Your task to perform on an android device: Turn off the flashlight Image 0: 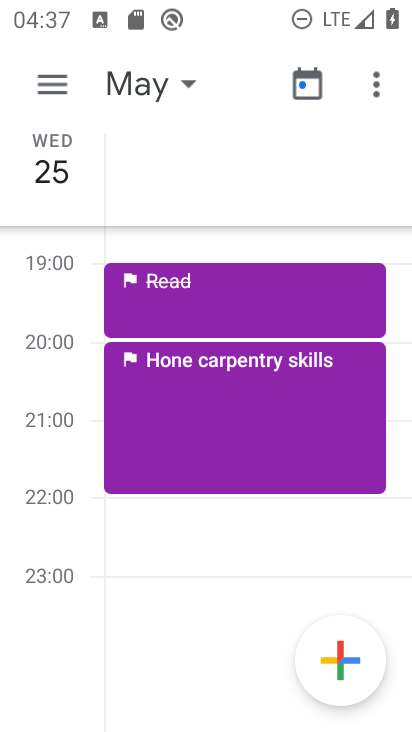
Step 0: press home button
Your task to perform on an android device: Turn off the flashlight Image 1: 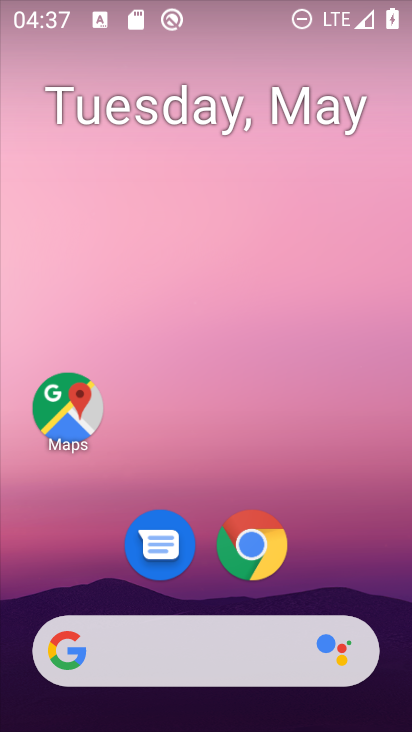
Step 1: drag from (219, 21) to (244, 375)
Your task to perform on an android device: Turn off the flashlight Image 2: 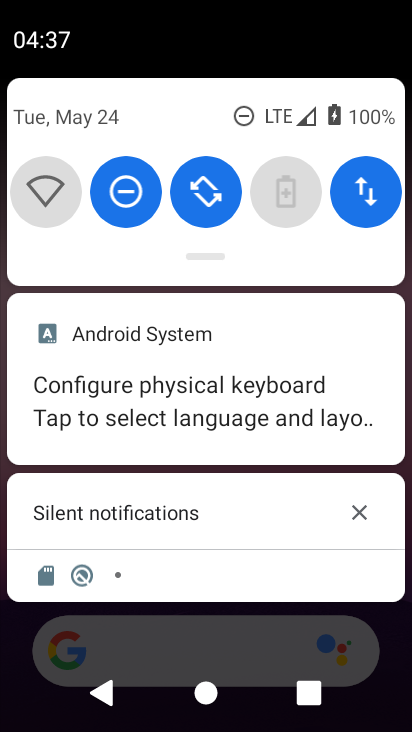
Step 2: drag from (210, 255) to (210, 553)
Your task to perform on an android device: Turn off the flashlight Image 3: 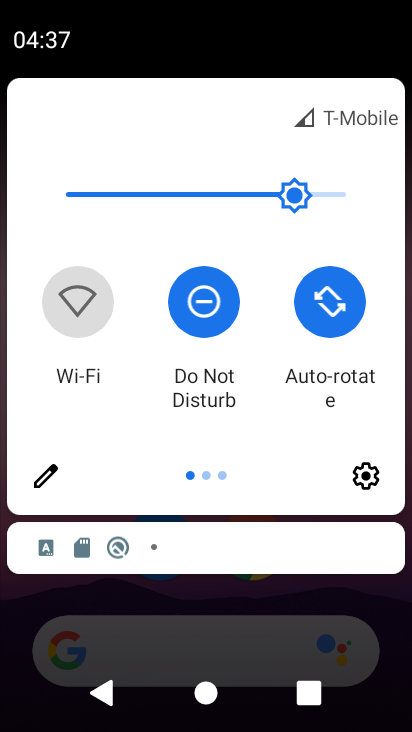
Step 3: click (45, 473)
Your task to perform on an android device: Turn off the flashlight Image 4: 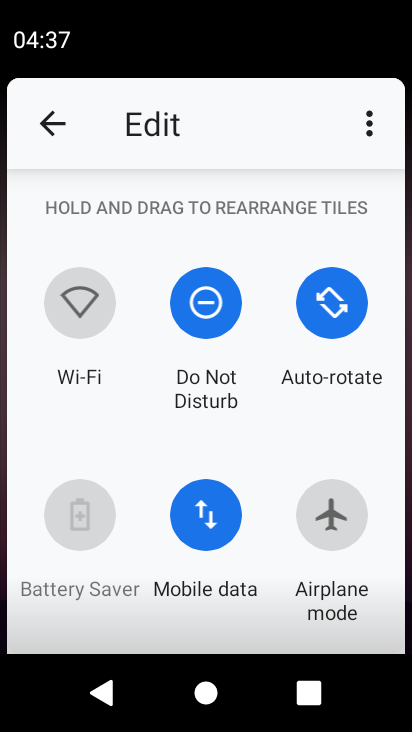
Step 4: task complete